Your task to perform on an android device: toggle sleep mode Image 0: 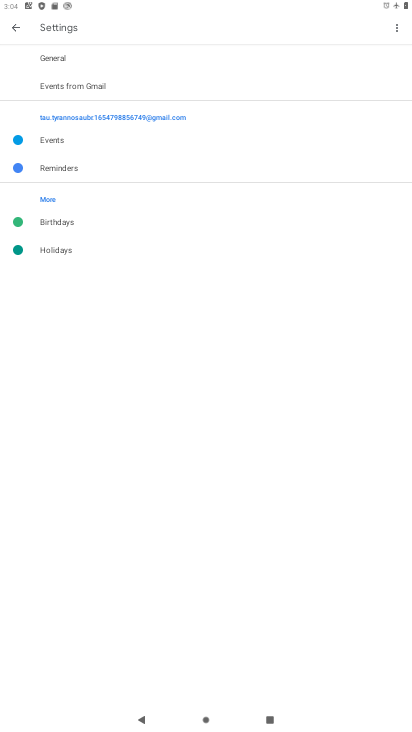
Step 0: press home button
Your task to perform on an android device: toggle sleep mode Image 1: 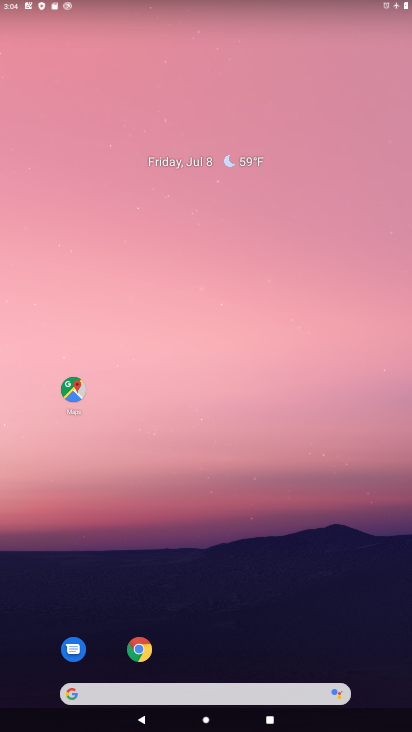
Step 1: drag from (285, 610) to (280, 173)
Your task to perform on an android device: toggle sleep mode Image 2: 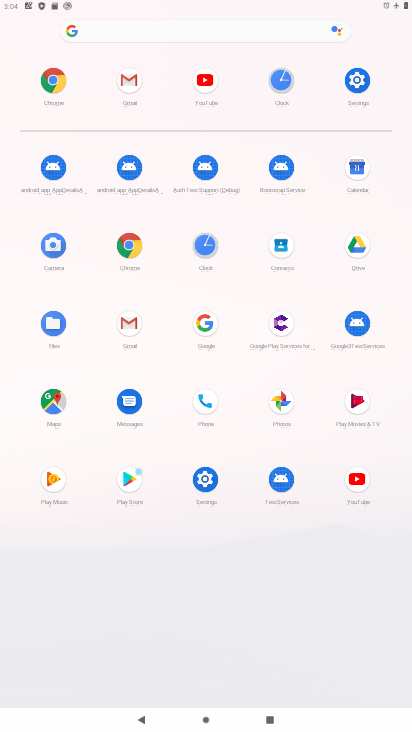
Step 2: click (360, 80)
Your task to perform on an android device: toggle sleep mode Image 3: 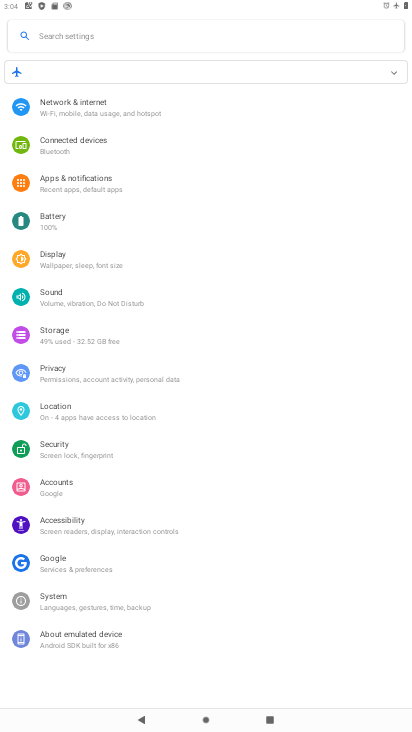
Step 3: click (74, 258)
Your task to perform on an android device: toggle sleep mode Image 4: 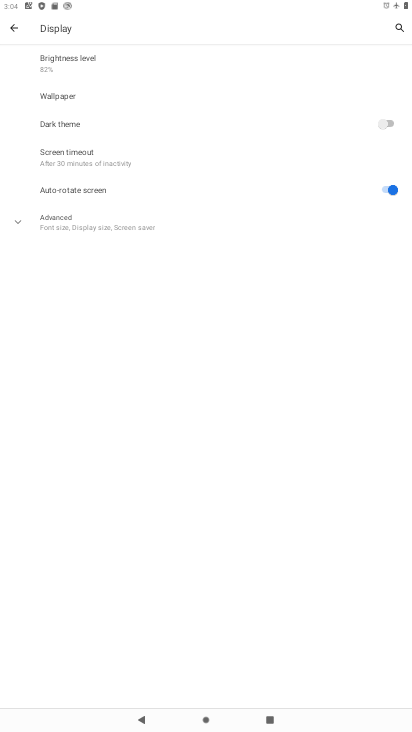
Step 4: click (89, 168)
Your task to perform on an android device: toggle sleep mode Image 5: 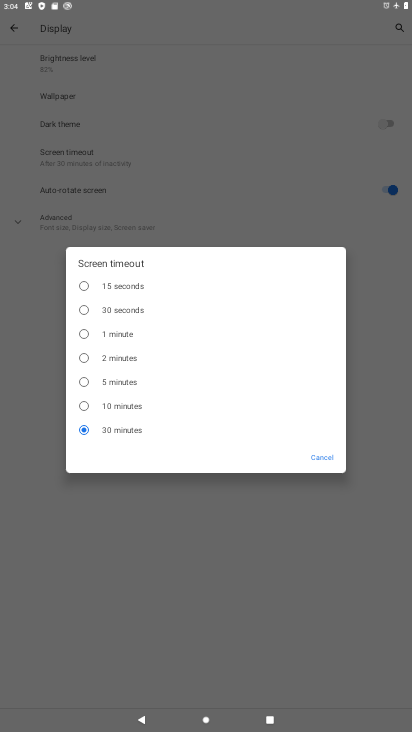
Step 5: click (118, 405)
Your task to perform on an android device: toggle sleep mode Image 6: 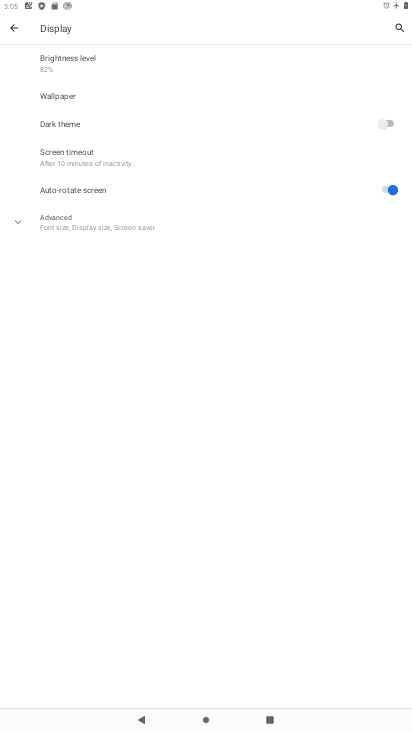
Step 6: task complete